Your task to perform on an android device: open the mobile data screen to see how much data has been used Image 0: 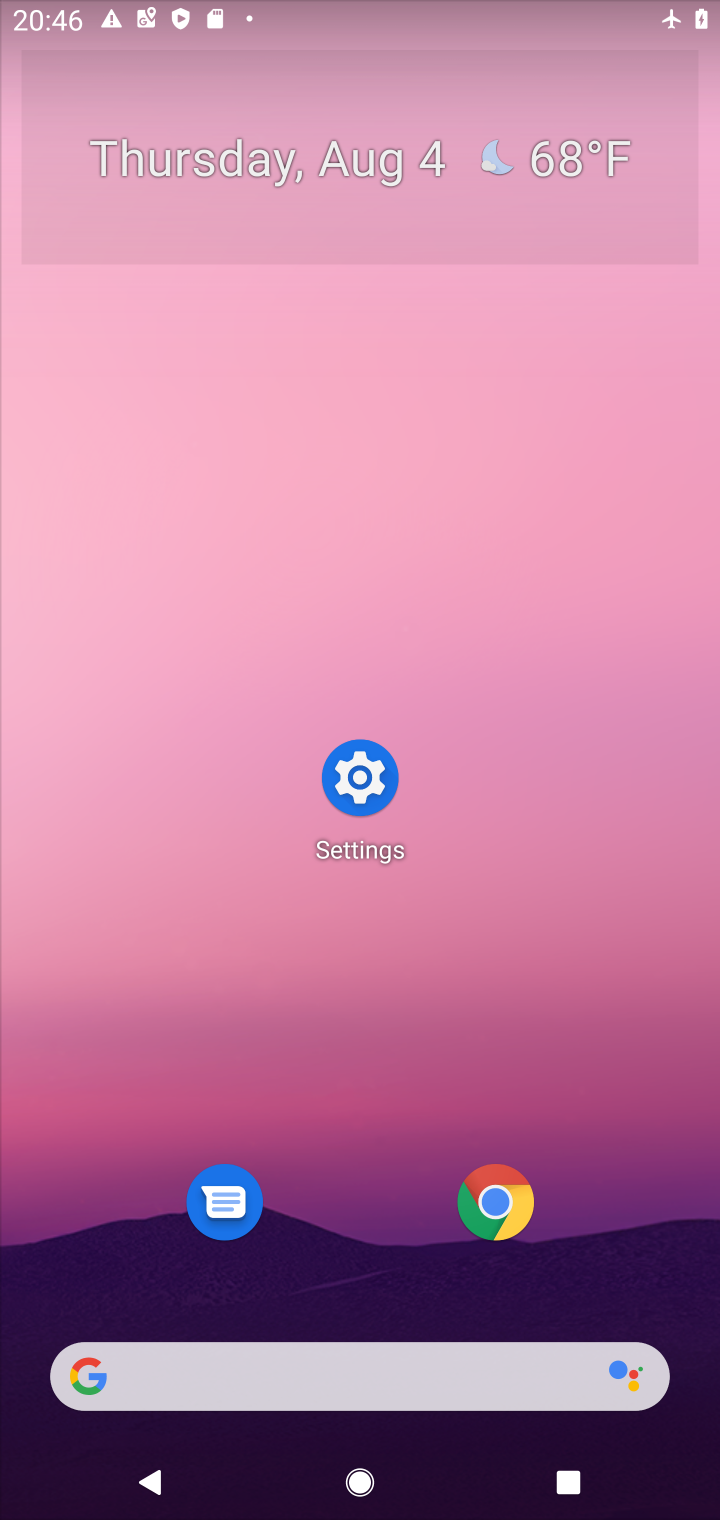
Step 0: click (342, 1240)
Your task to perform on an android device: open the mobile data screen to see how much data has been used Image 1: 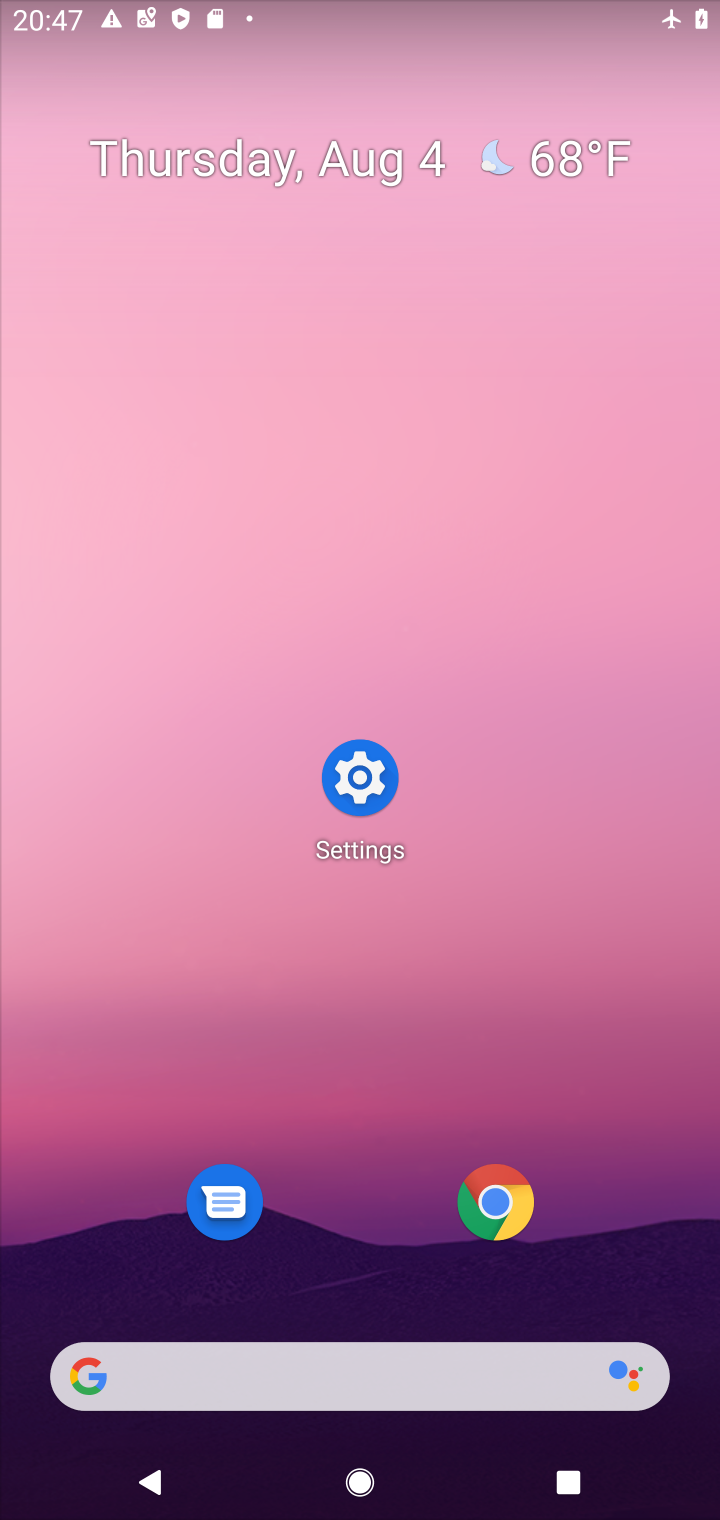
Step 1: drag from (362, 1239) to (344, 448)
Your task to perform on an android device: open the mobile data screen to see how much data has been used Image 2: 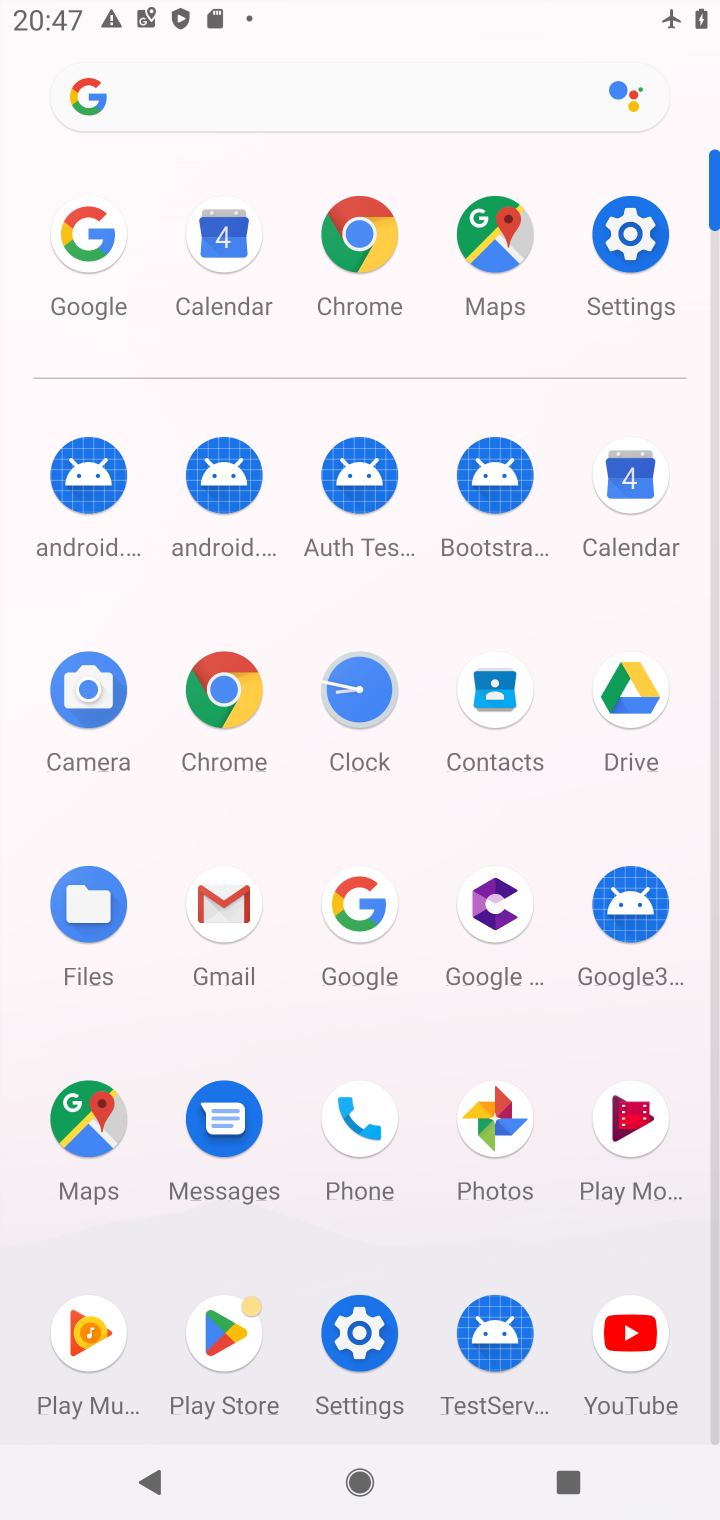
Step 2: click (615, 254)
Your task to perform on an android device: open the mobile data screen to see how much data has been used Image 3: 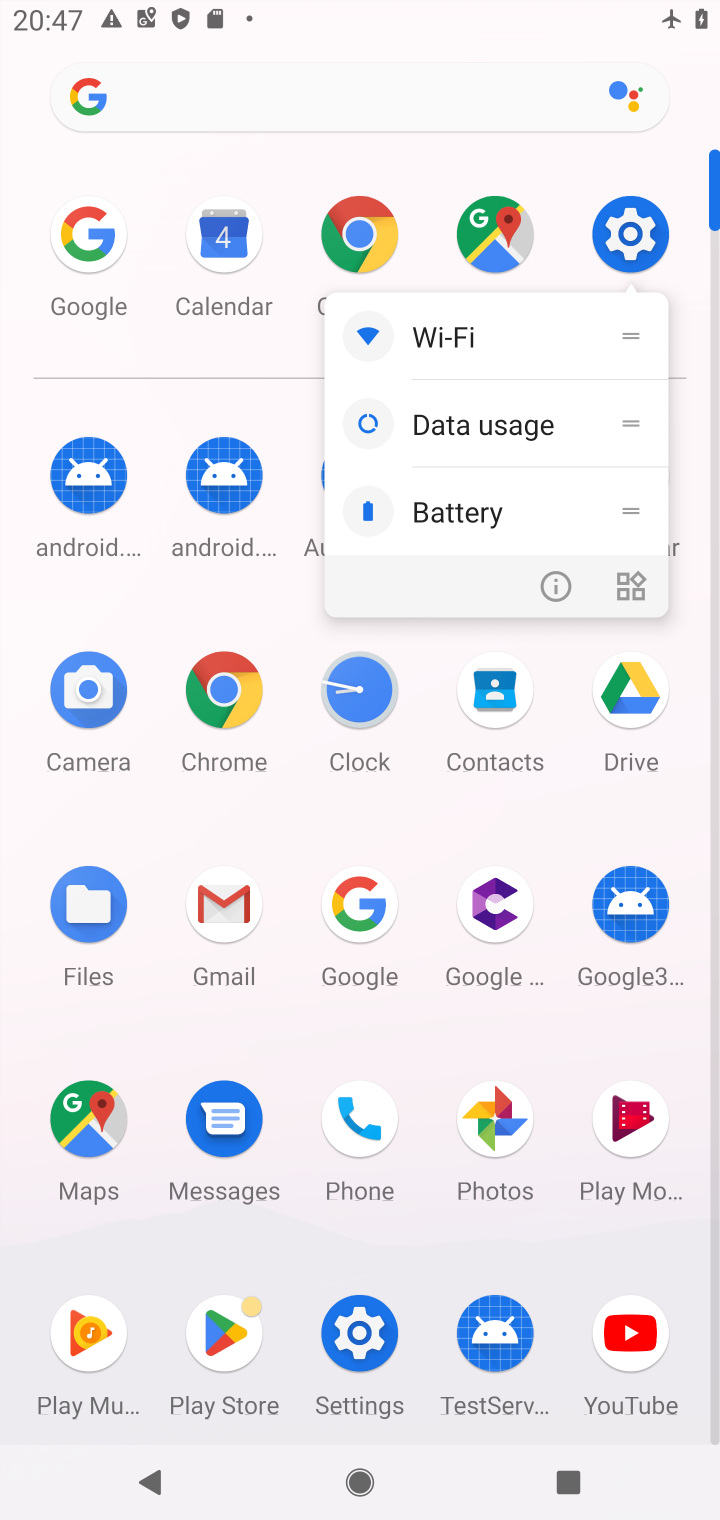
Step 3: click (615, 254)
Your task to perform on an android device: open the mobile data screen to see how much data has been used Image 4: 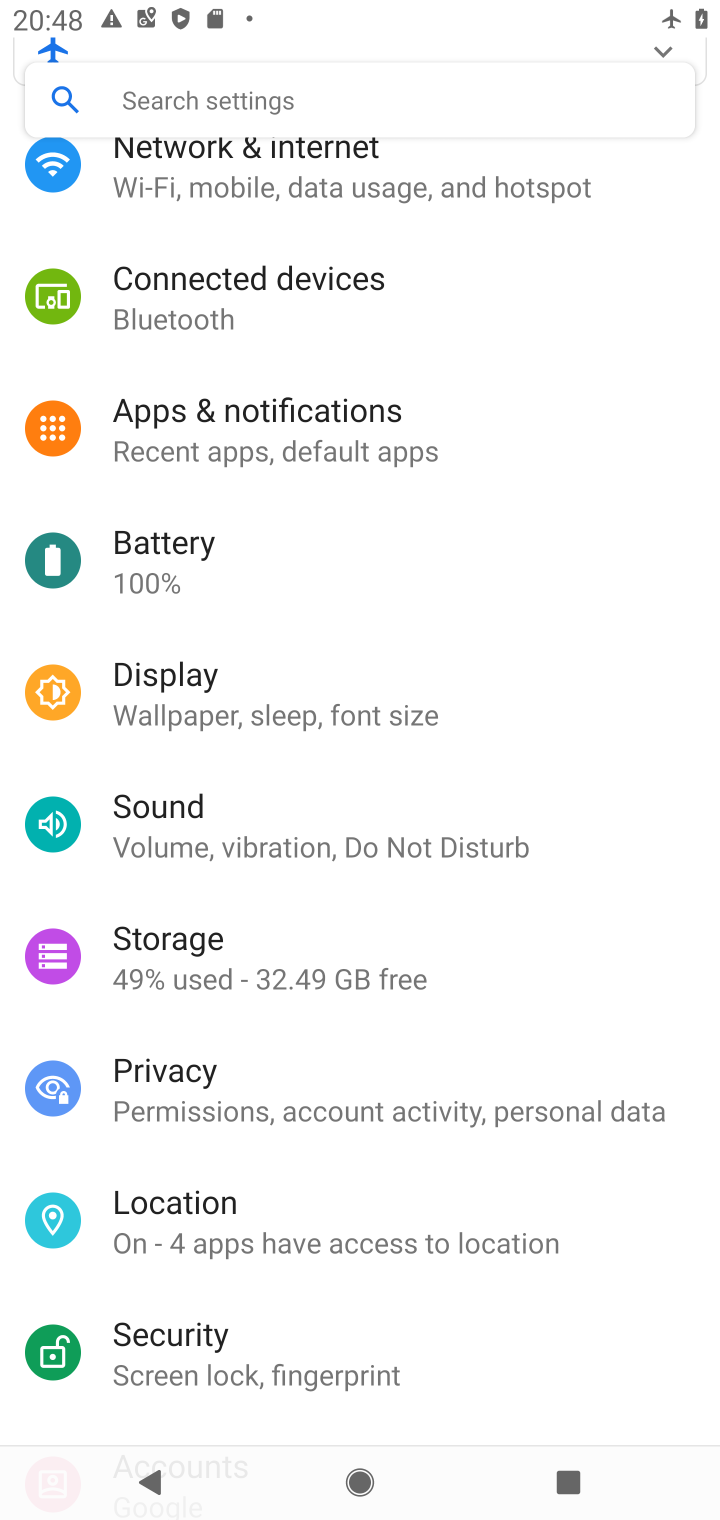
Step 4: drag from (317, 308) to (328, 824)
Your task to perform on an android device: open the mobile data screen to see how much data has been used Image 5: 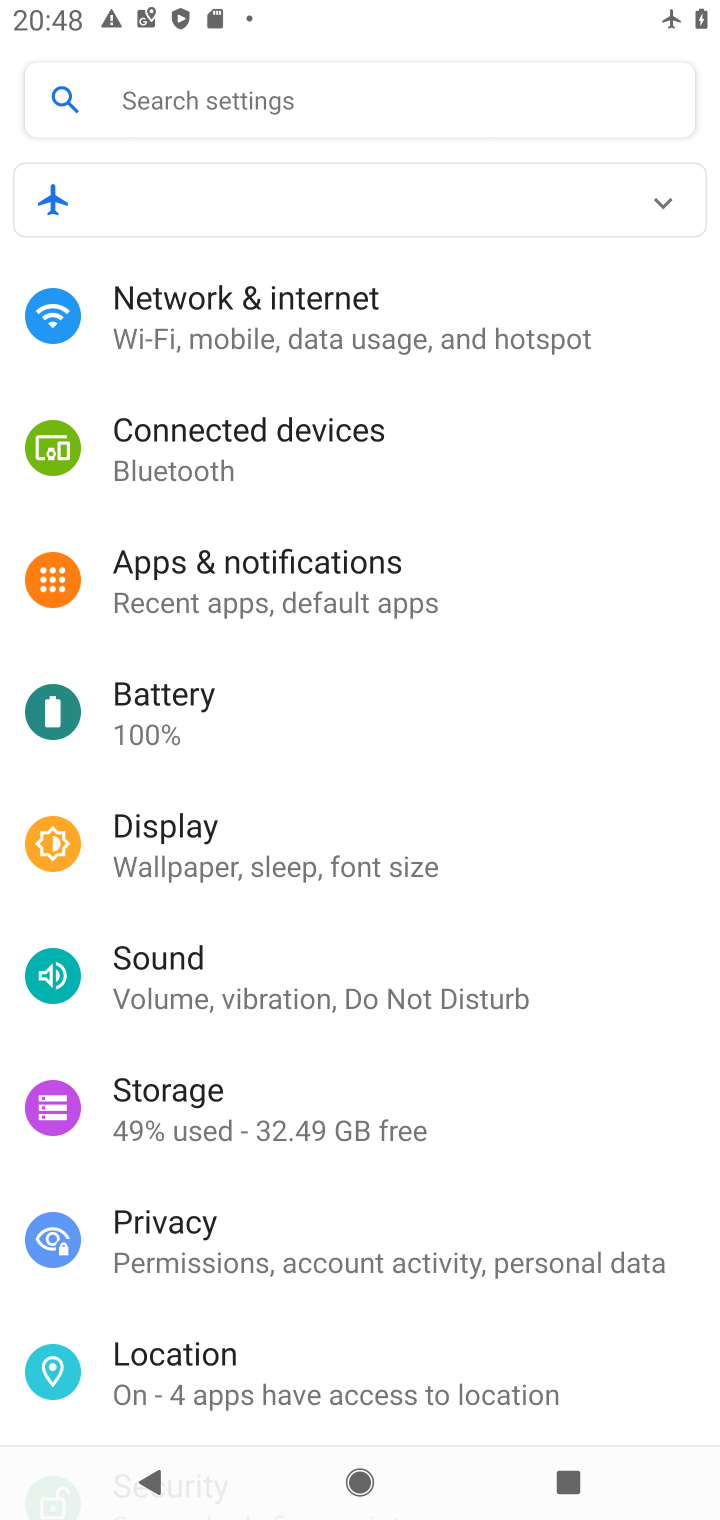
Step 5: click (263, 318)
Your task to perform on an android device: open the mobile data screen to see how much data has been used Image 6: 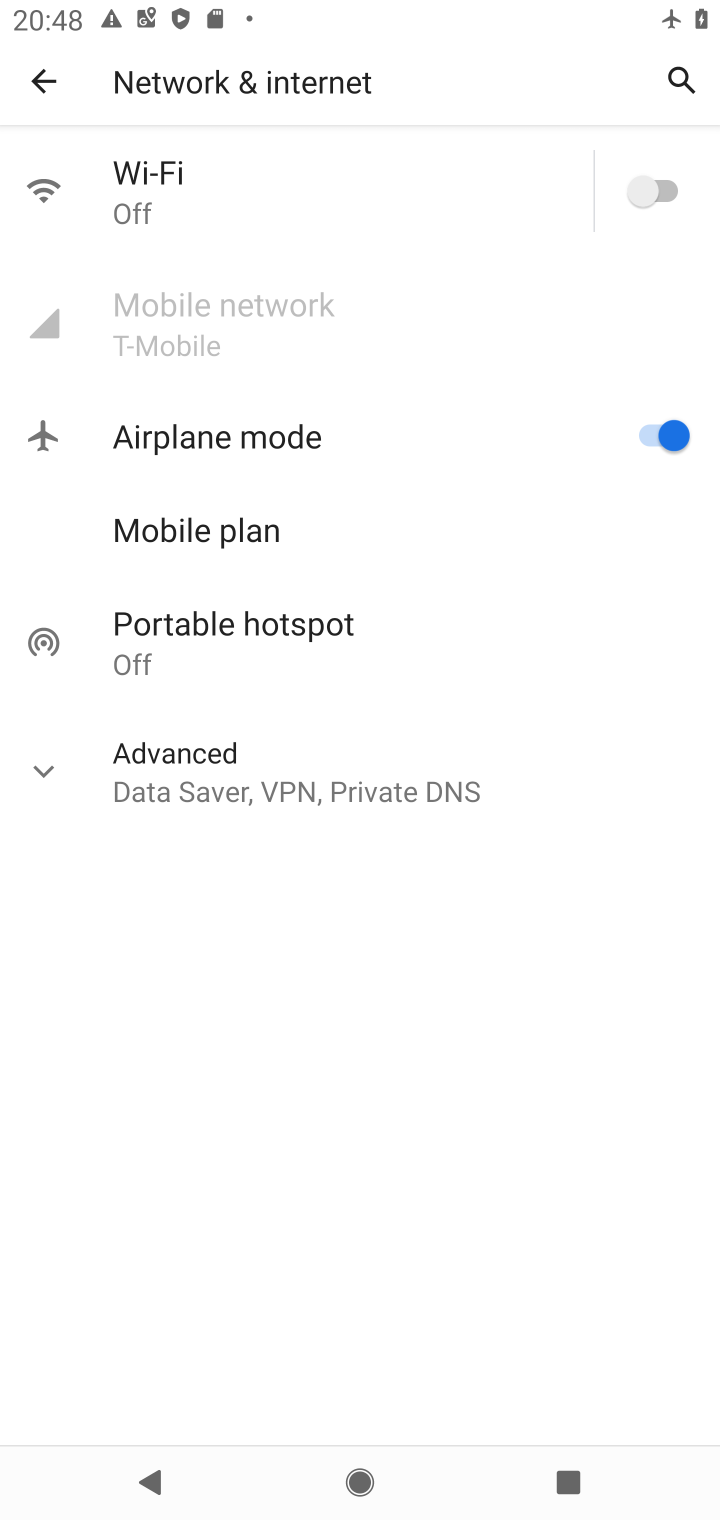
Step 6: task complete